Your task to perform on an android device: Do I have any events this weekend? Image 0: 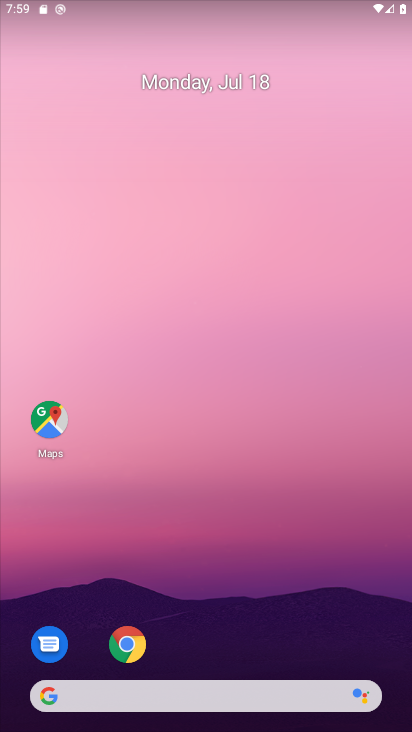
Step 0: click (283, 646)
Your task to perform on an android device: Do I have any events this weekend? Image 1: 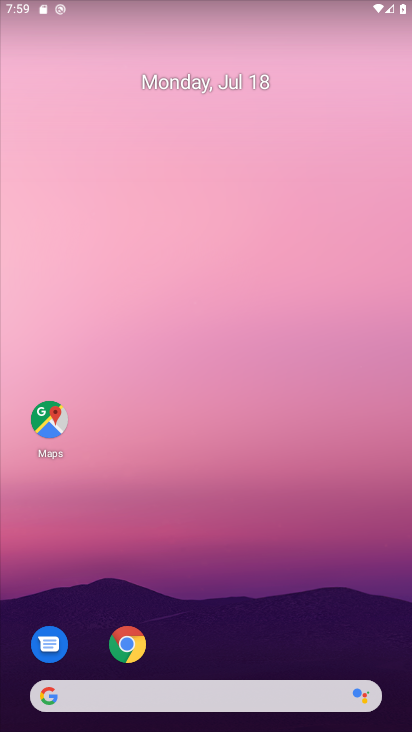
Step 1: click (262, 681)
Your task to perform on an android device: Do I have any events this weekend? Image 2: 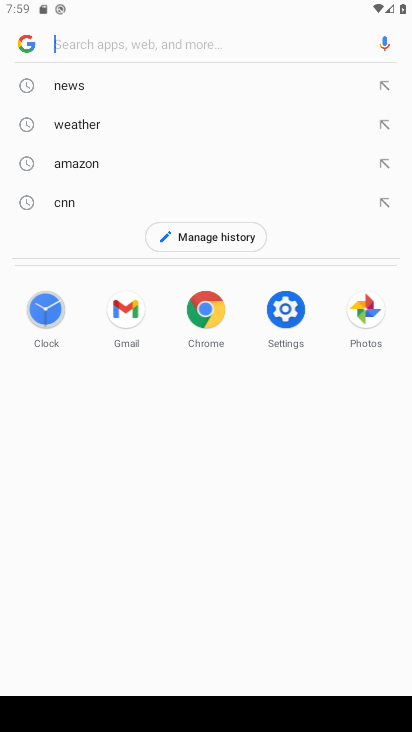
Step 2: press home button
Your task to perform on an android device: Do I have any events this weekend? Image 3: 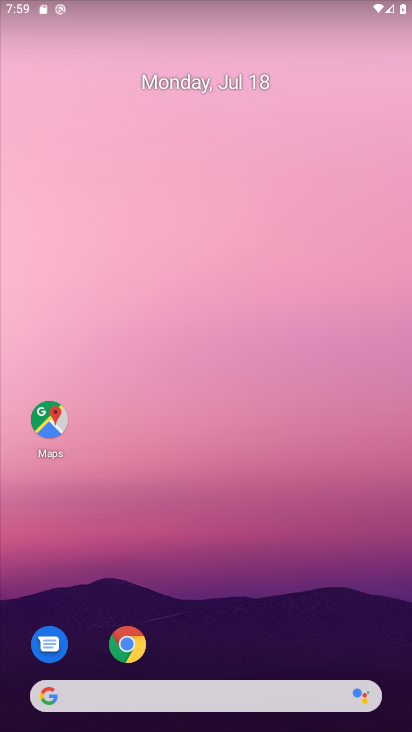
Step 3: drag from (214, 656) to (200, 150)
Your task to perform on an android device: Do I have any events this weekend? Image 4: 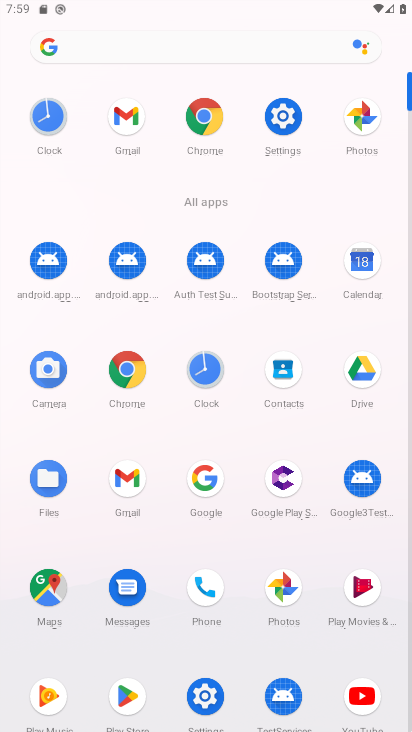
Step 4: click (360, 252)
Your task to perform on an android device: Do I have any events this weekend? Image 5: 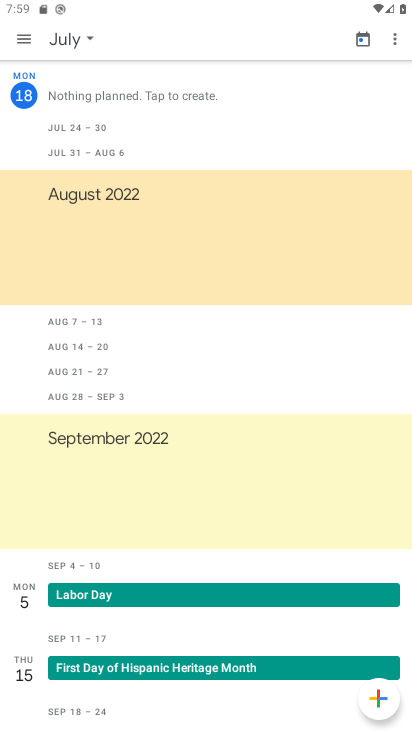
Step 5: task complete